Your task to perform on an android device: Open Google Chrome and click the shortcut for Amazon.com Image 0: 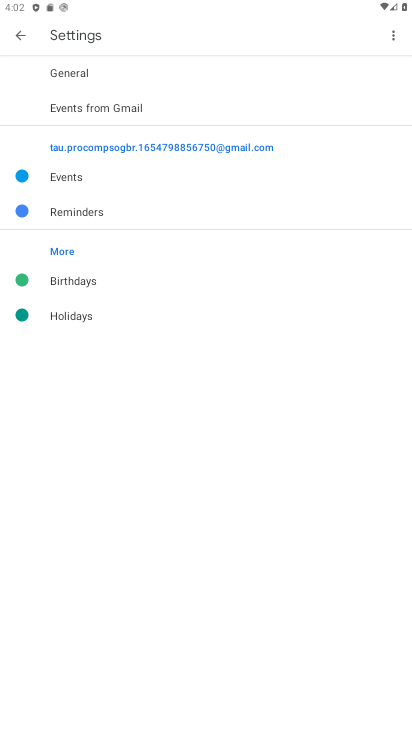
Step 0: press back button
Your task to perform on an android device: Open Google Chrome and click the shortcut for Amazon.com Image 1: 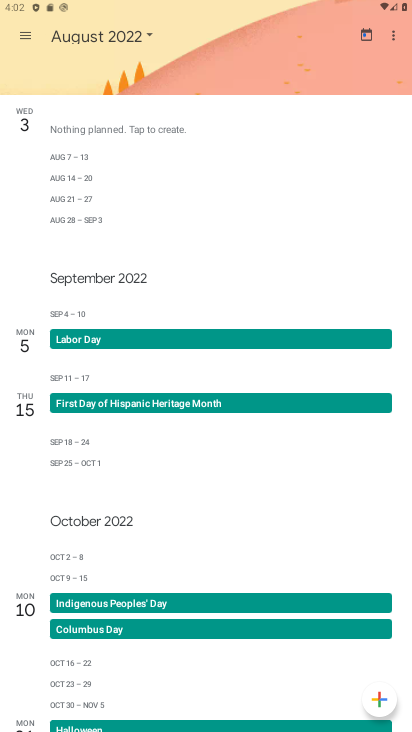
Step 1: press home button
Your task to perform on an android device: Open Google Chrome and click the shortcut for Amazon.com Image 2: 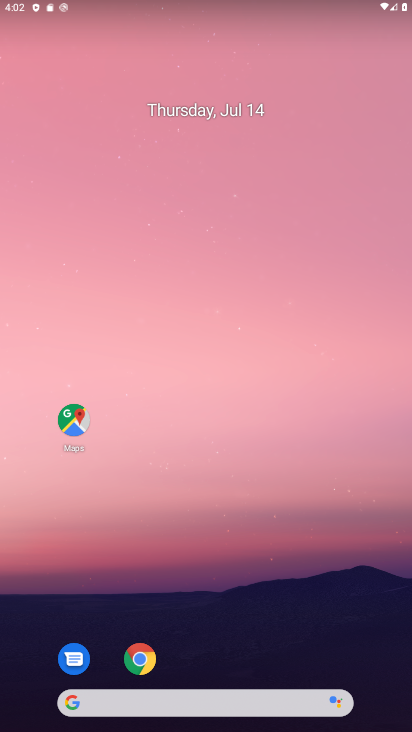
Step 2: drag from (218, 660) to (214, 208)
Your task to perform on an android device: Open Google Chrome and click the shortcut for Amazon.com Image 3: 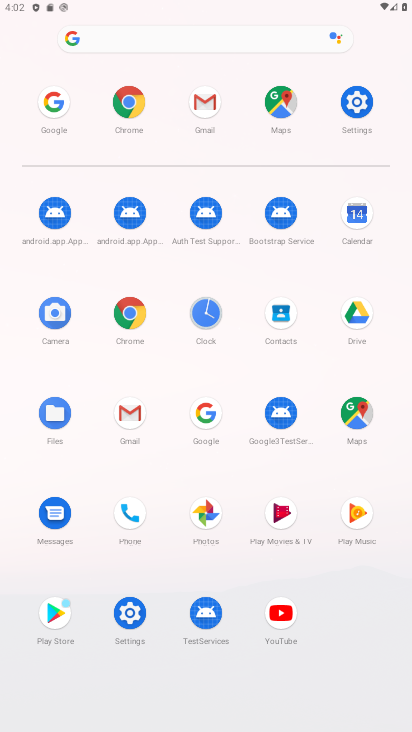
Step 3: click (118, 311)
Your task to perform on an android device: Open Google Chrome and click the shortcut for Amazon.com Image 4: 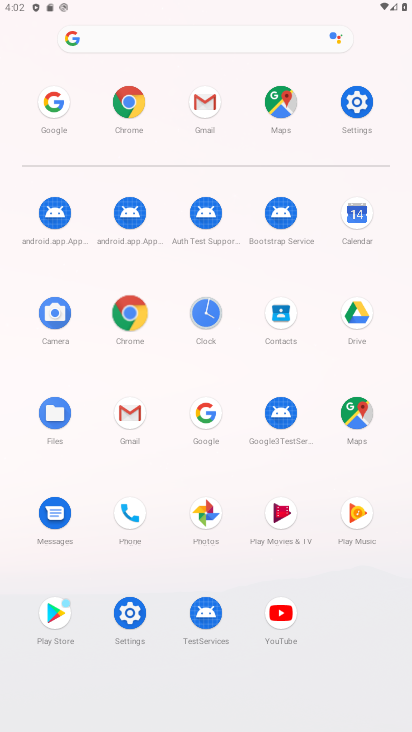
Step 4: click (122, 312)
Your task to perform on an android device: Open Google Chrome and click the shortcut for Amazon.com Image 5: 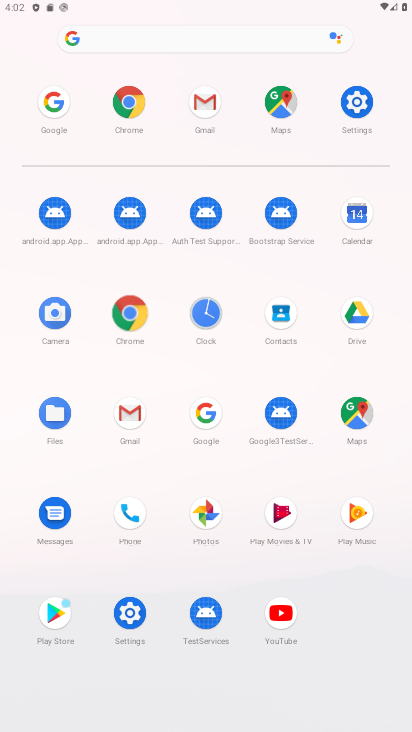
Step 5: click (123, 312)
Your task to perform on an android device: Open Google Chrome and click the shortcut for Amazon.com Image 6: 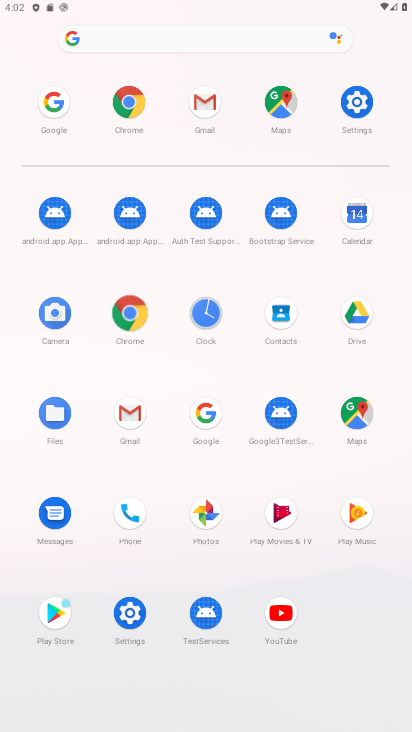
Step 6: click (127, 313)
Your task to perform on an android device: Open Google Chrome and click the shortcut for Amazon.com Image 7: 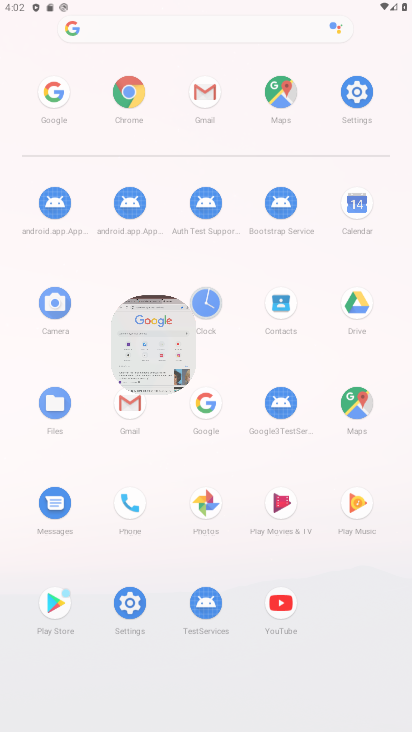
Step 7: click (129, 315)
Your task to perform on an android device: Open Google Chrome and click the shortcut for Amazon.com Image 8: 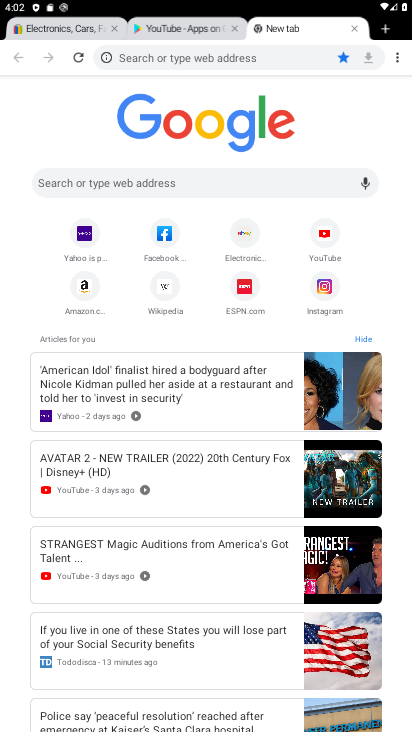
Step 8: click (132, 313)
Your task to perform on an android device: Open Google Chrome and click the shortcut for Amazon.com Image 9: 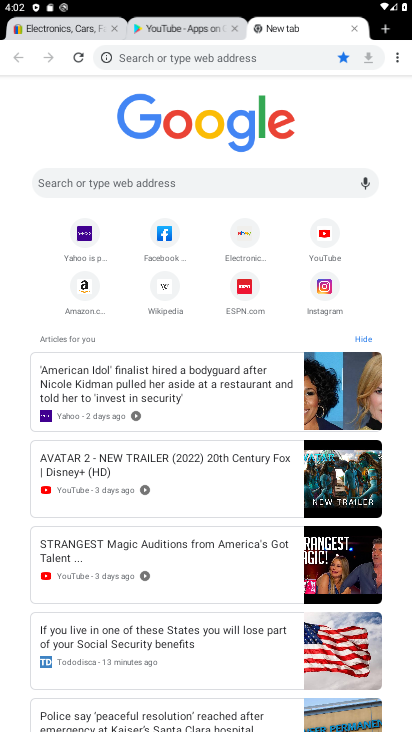
Step 9: click (89, 291)
Your task to perform on an android device: Open Google Chrome and click the shortcut for Amazon.com Image 10: 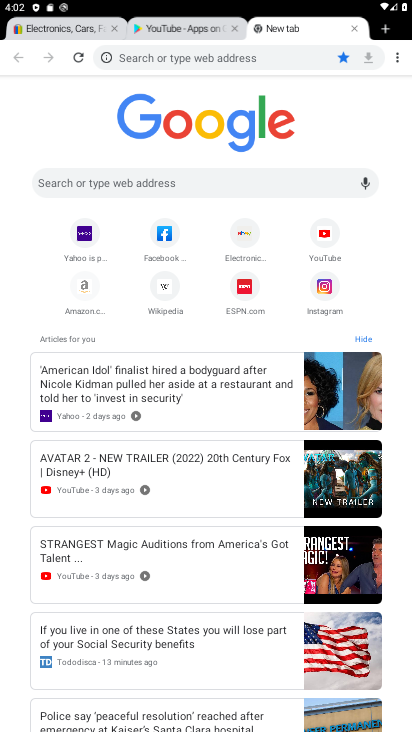
Step 10: click (69, 275)
Your task to perform on an android device: Open Google Chrome and click the shortcut for Amazon.com Image 11: 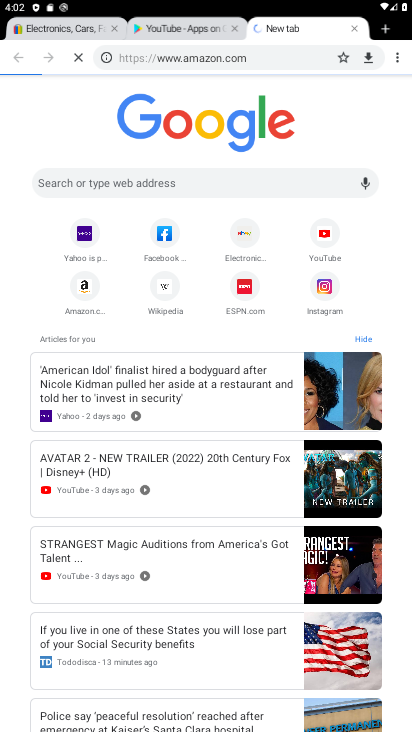
Step 11: click (69, 275)
Your task to perform on an android device: Open Google Chrome and click the shortcut for Amazon.com Image 12: 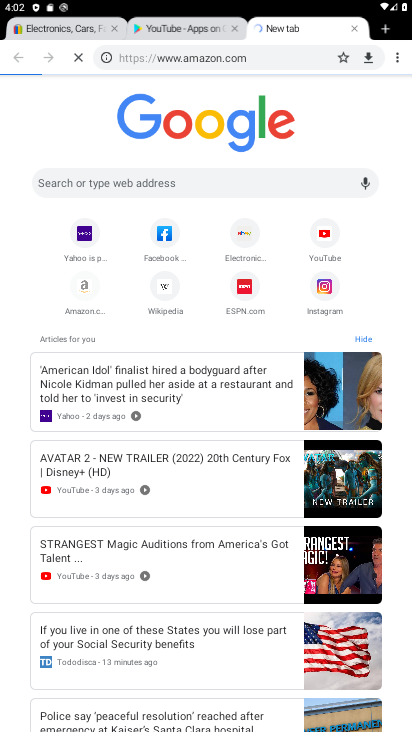
Step 12: click (72, 279)
Your task to perform on an android device: Open Google Chrome and click the shortcut for Amazon.com Image 13: 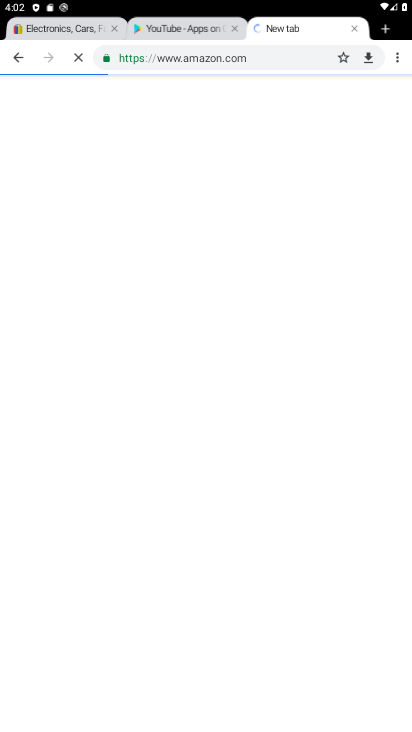
Step 13: click (77, 285)
Your task to perform on an android device: Open Google Chrome and click the shortcut for Amazon.com Image 14: 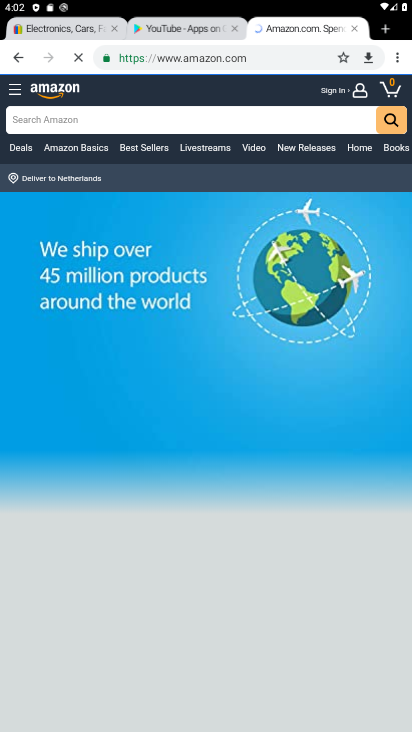
Step 14: task complete